Your task to perform on an android device: Turn off the flashlight Image 0: 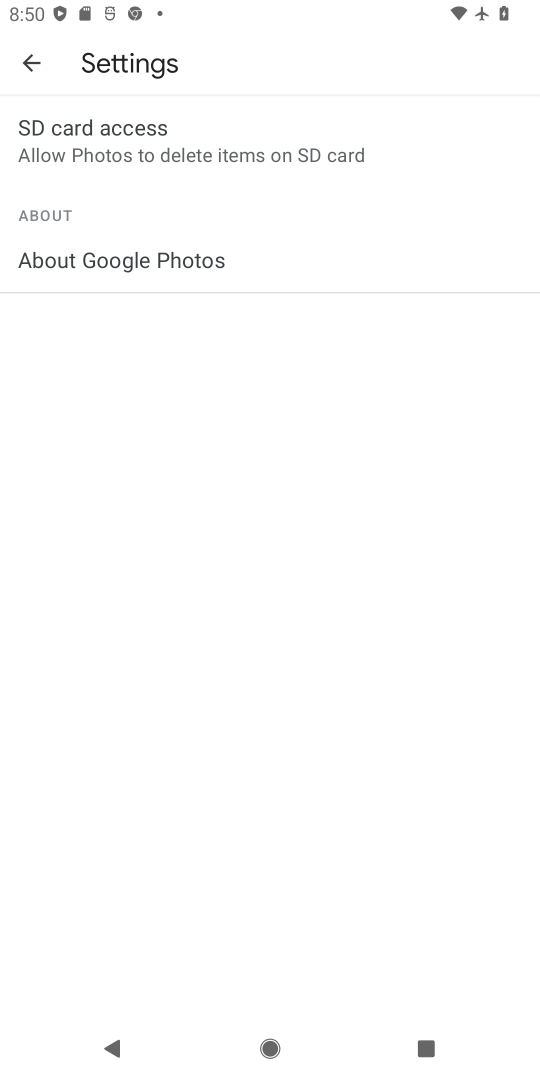
Step 0: drag from (348, 752) to (344, 112)
Your task to perform on an android device: Turn off the flashlight Image 1: 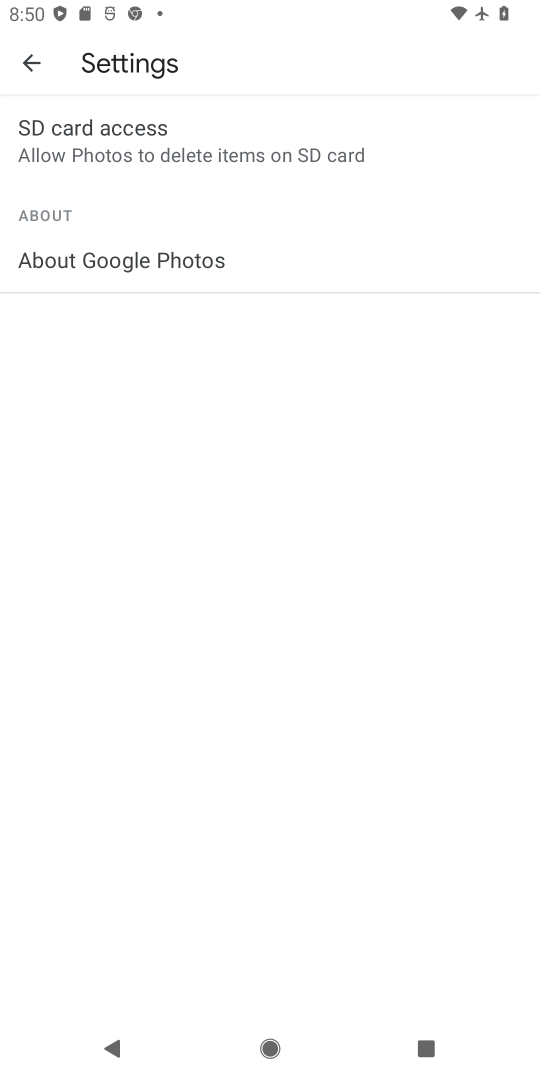
Step 1: press home button
Your task to perform on an android device: Turn off the flashlight Image 2: 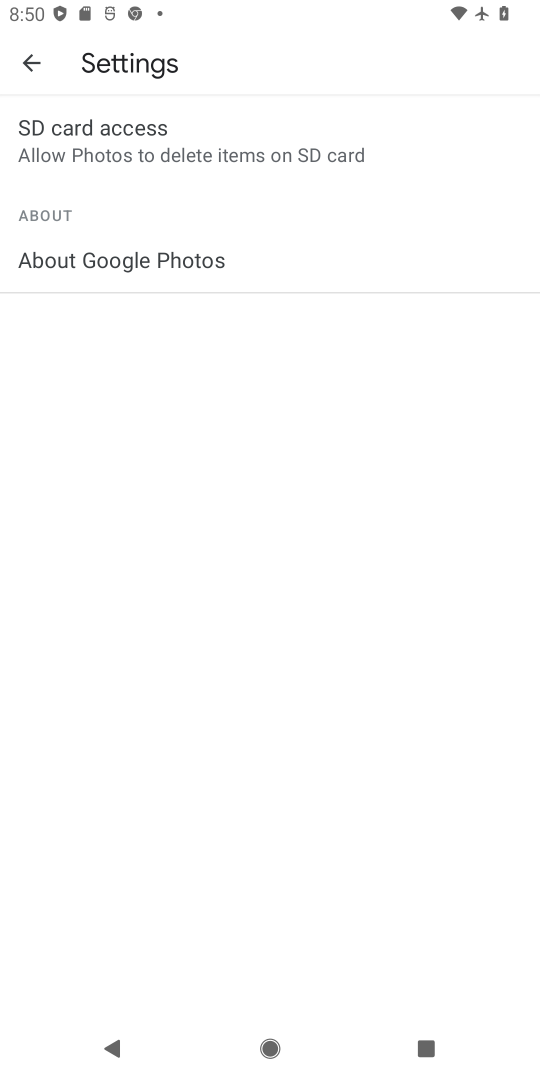
Step 2: press home button
Your task to perform on an android device: Turn off the flashlight Image 3: 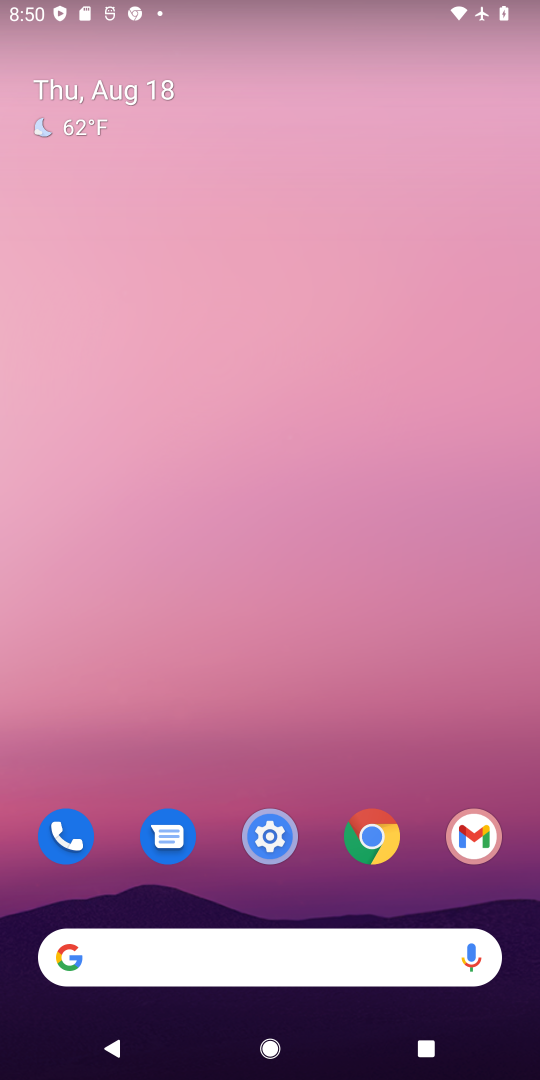
Step 3: drag from (425, 731) to (386, 42)
Your task to perform on an android device: Turn off the flashlight Image 4: 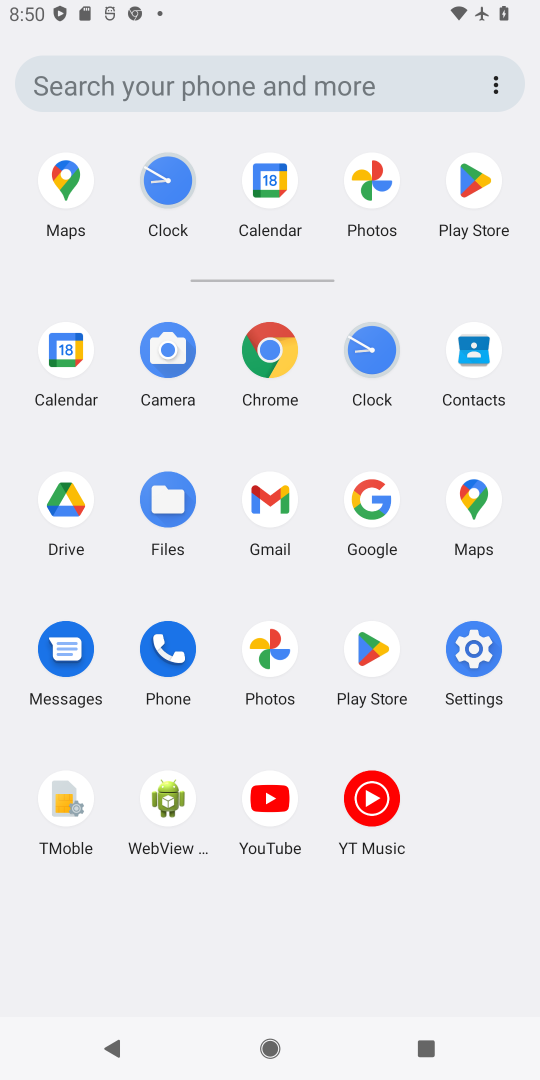
Step 4: click (472, 667)
Your task to perform on an android device: Turn off the flashlight Image 5: 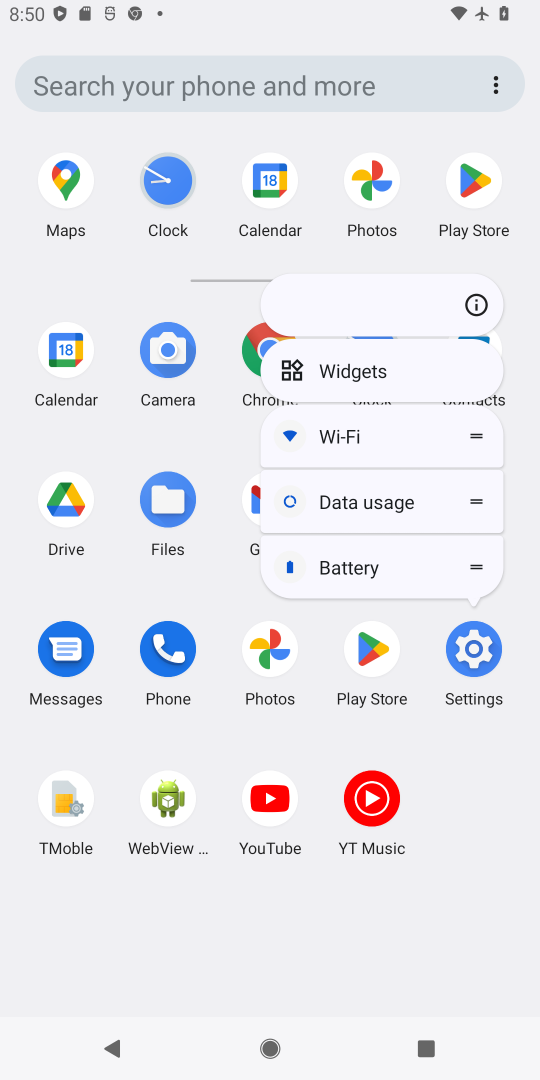
Step 5: click (474, 656)
Your task to perform on an android device: Turn off the flashlight Image 6: 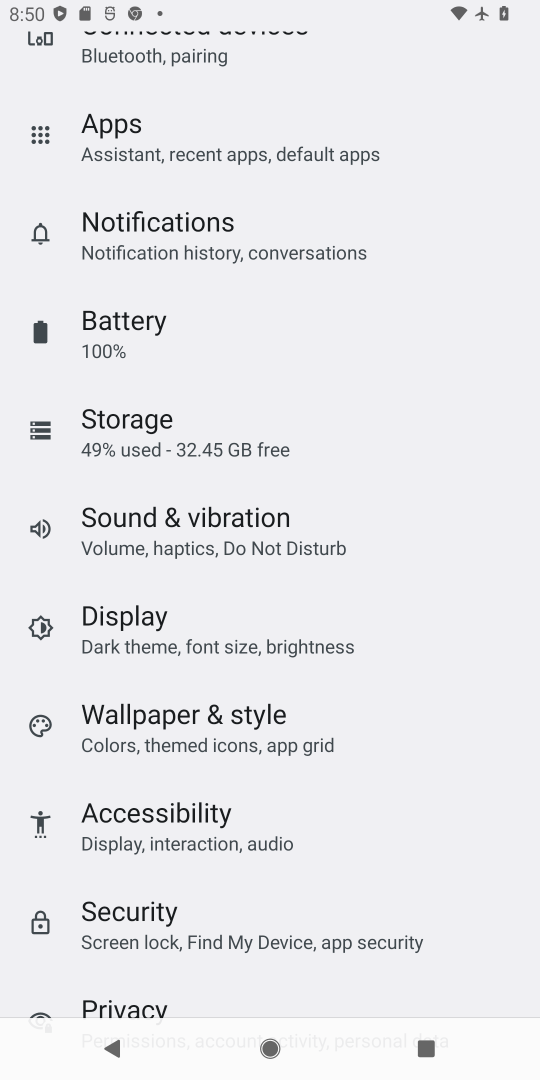
Step 6: drag from (237, 310) to (237, 565)
Your task to perform on an android device: Turn off the flashlight Image 7: 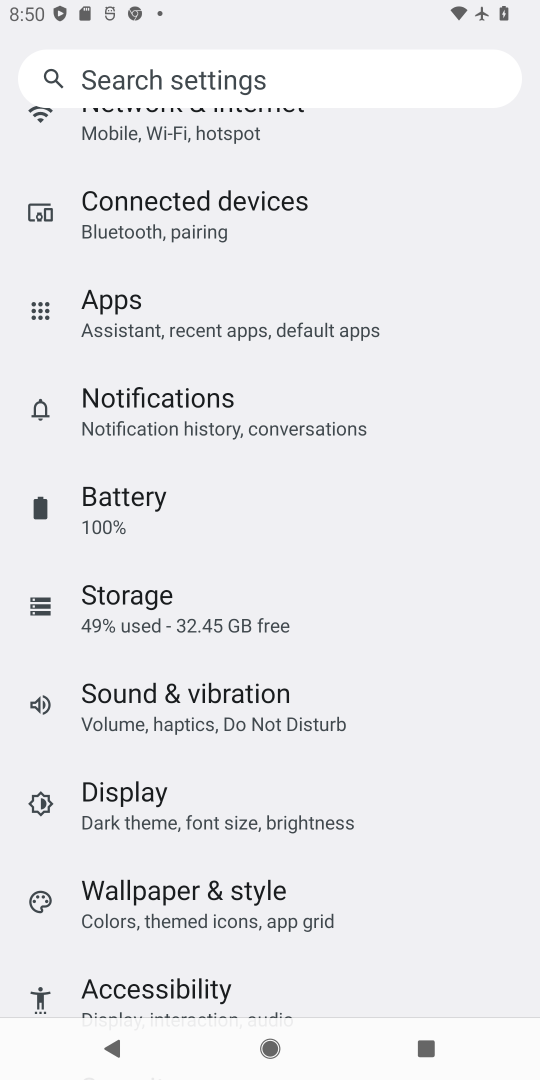
Step 7: click (192, 796)
Your task to perform on an android device: Turn off the flashlight Image 8: 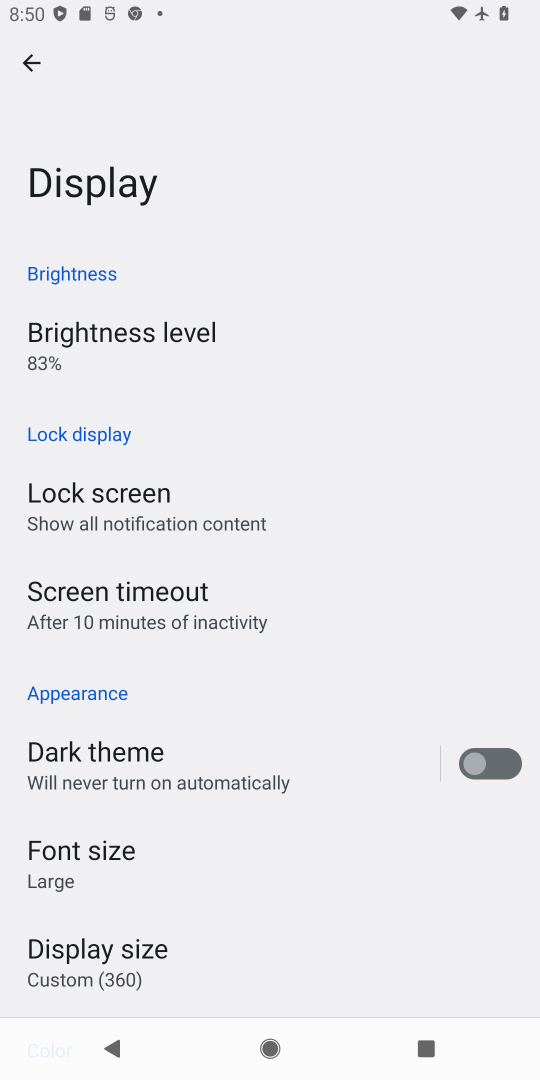
Step 8: click (185, 624)
Your task to perform on an android device: Turn off the flashlight Image 9: 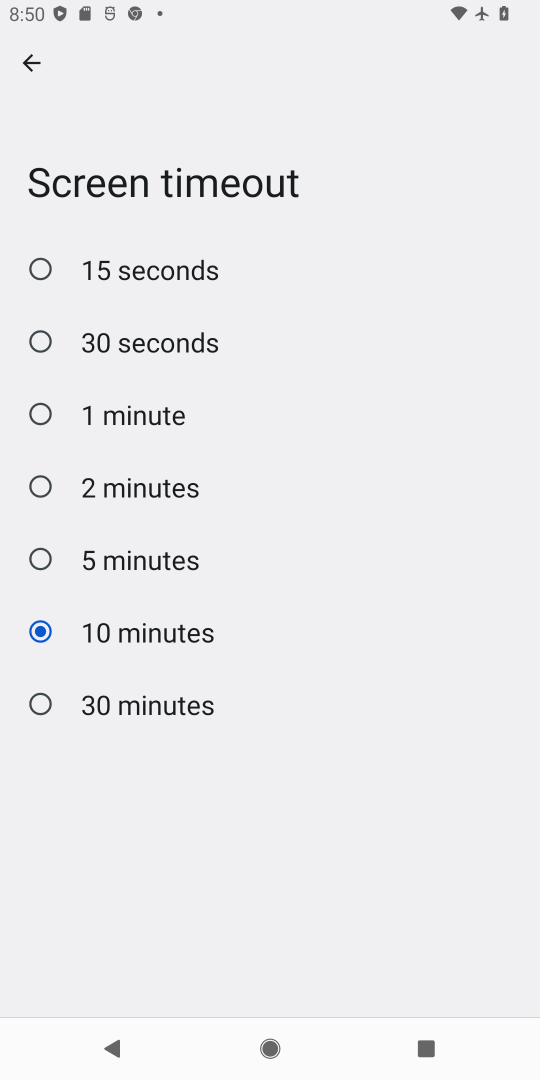
Step 9: task complete